Your task to perform on an android device: open the mobile data screen to see how much data has been used Image 0: 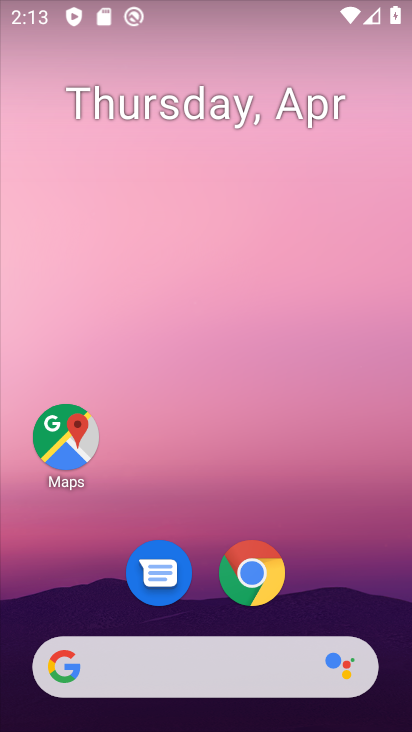
Step 0: drag from (345, 599) to (238, 103)
Your task to perform on an android device: open the mobile data screen to see how much data has been used Image 1: 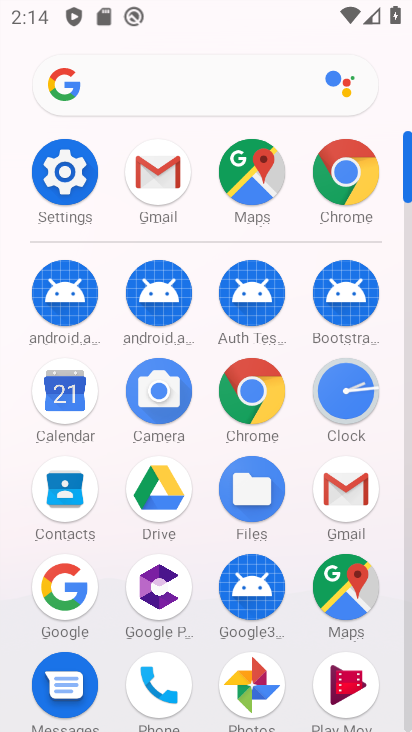
Step 1: click (63, 164)
Your task to perform on an android device: open the mobile data screen to see how much data has been used Image 2: 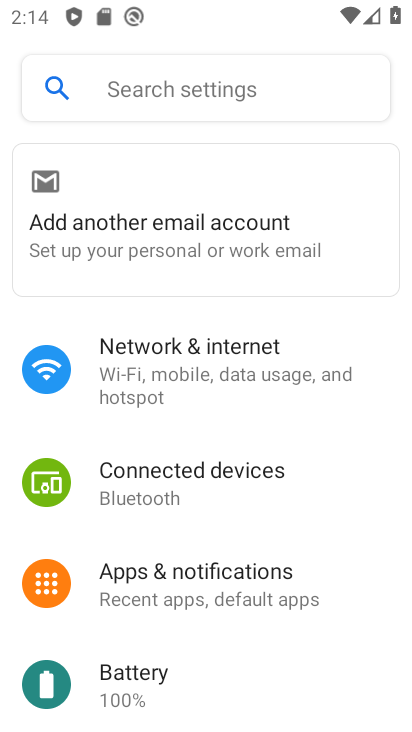
Step 2: drag from (196, 630) to (194, 301)
Your task to perform on an android device: open the mobile data screen to see how much data has been used Image 3: 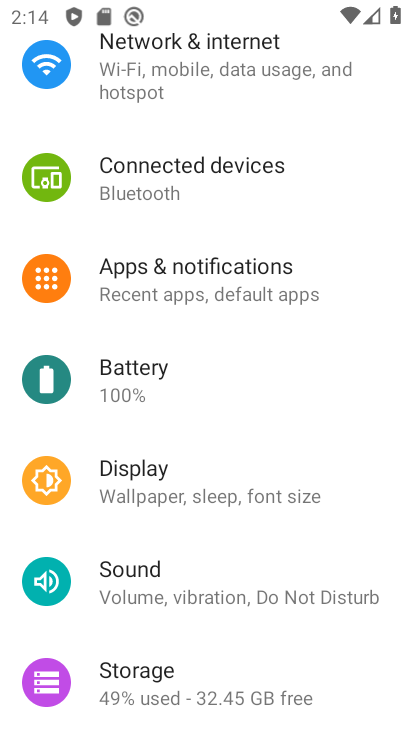
Step 3: click (238, 104)
Your task to perform on an android device: open the mobile data screen to see how much data has been used Image 4: 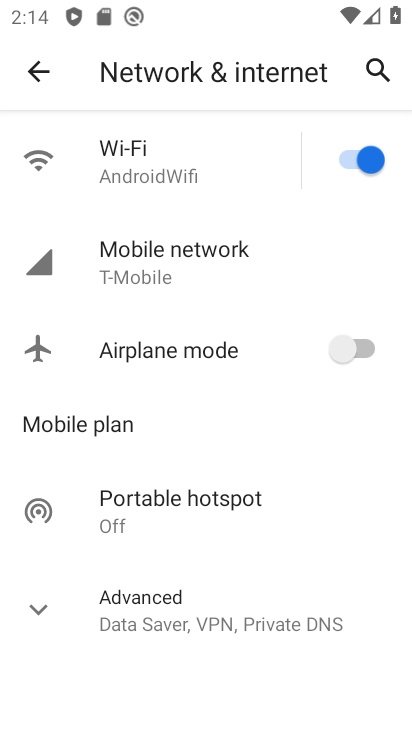
Step 4: click (183, 268)
Your task to perform on an android device: open the mobile data screen to see how much data has been used Image 5: 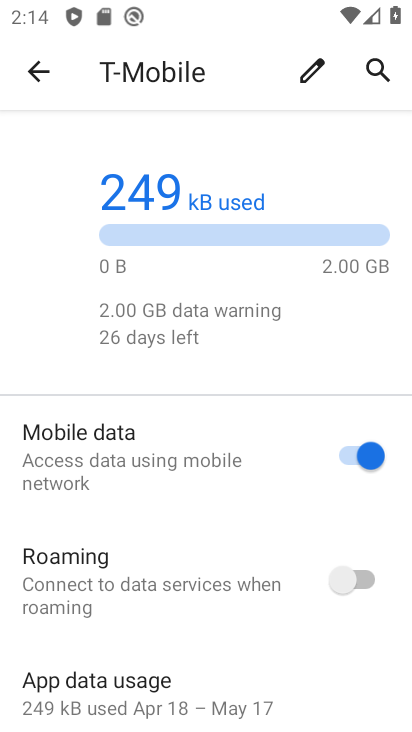
Step 5: click (133, 687)
Your task to perform on an android device: open the mobile data screen to see how much data has been used Image 6: 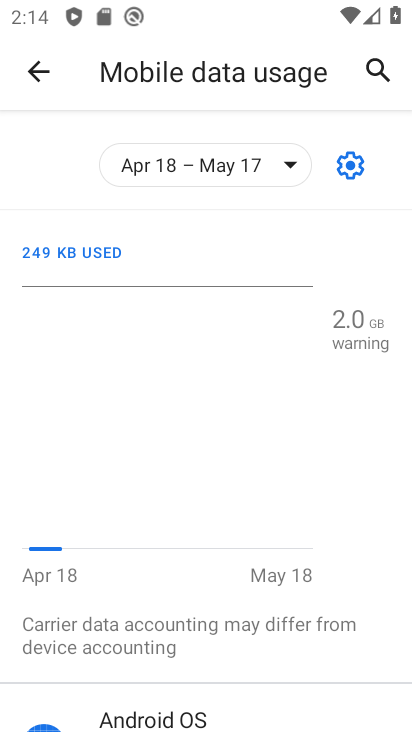
Step 6: task complete